Your task to perform on an android device: Open notification settings Image 0: 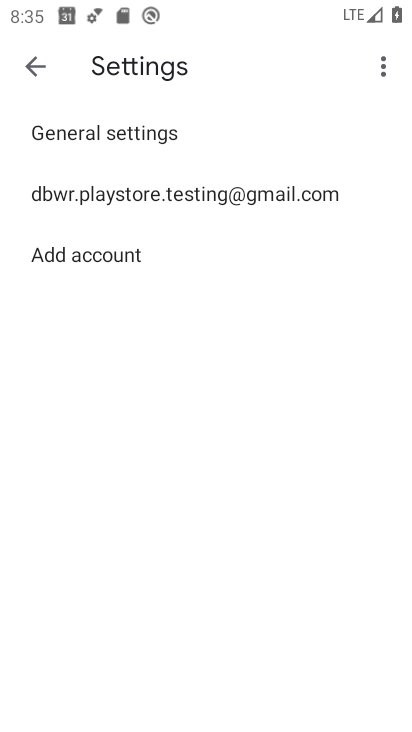
Step 0: press home button
Your task to perform on an android device: Open notification settings Image 1: 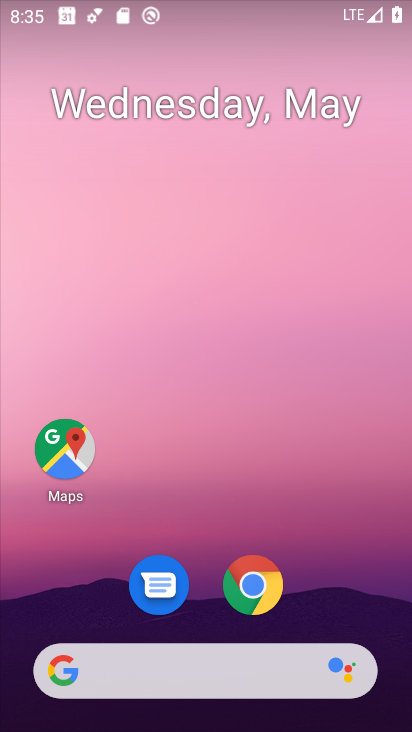
Step 1: drag from (292, 483) to (245, 30)
Your task to perform on an android device: Open notification settings Image 2: 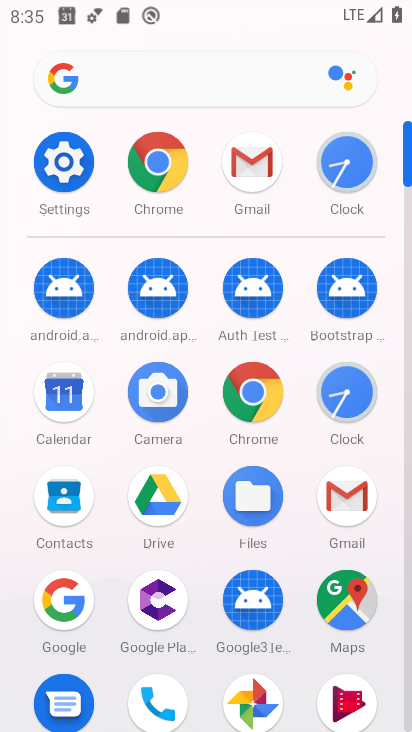
Step 2: click (65, 156)
Your task to perform on an android device: Open notification settings Image 3: 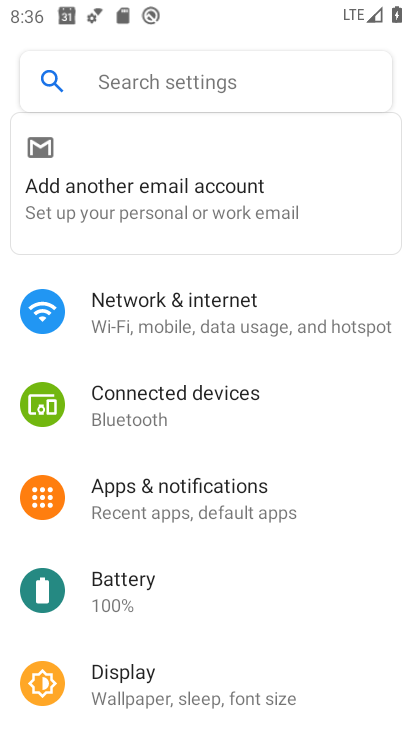
Step 3: click (228, 494)
Your task to perform on an android device: Open notification settings Image 4: 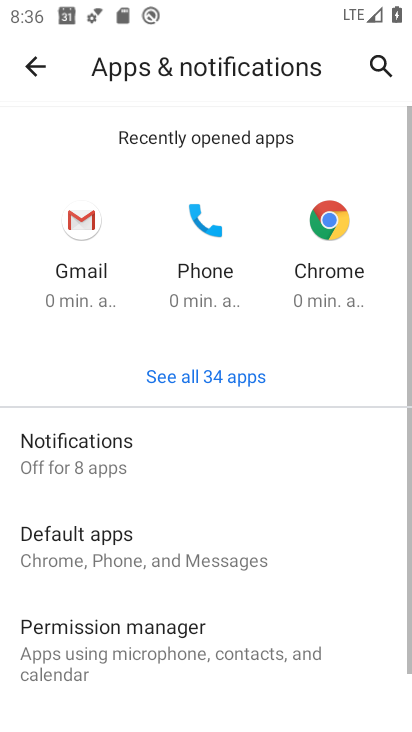
Step 4: click (190, 451)
Your task to perform on an android device: Open notification settings Image 5: 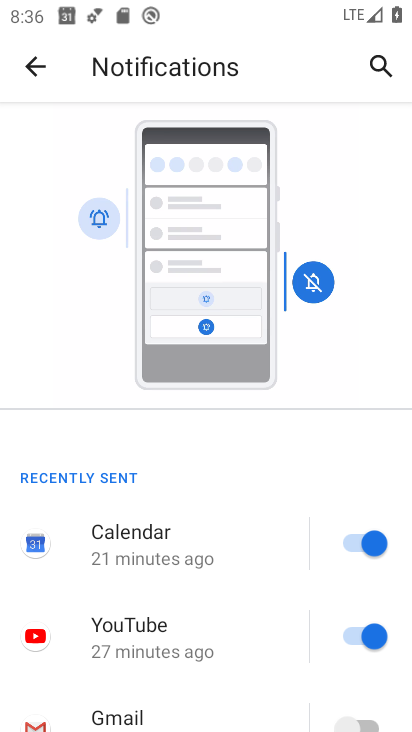
Step 5: task complete